Your task to perform on an android device: allow notifications from all sites in the chrome app Image 0: 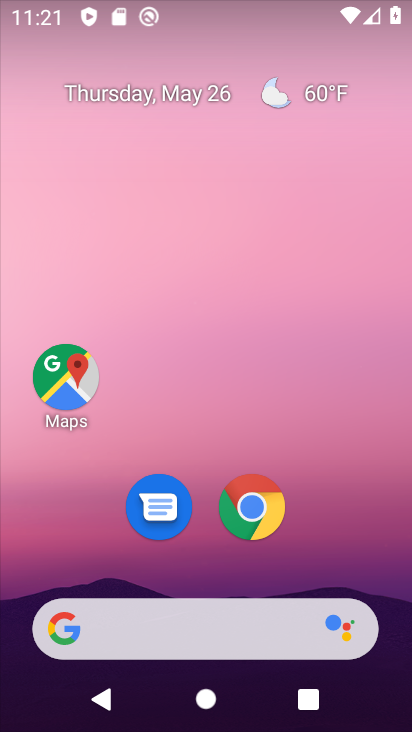
Step 0: click (248, 514)
Your task to perform on an android device: allow notifications from all sites in the chrome app Image 1: 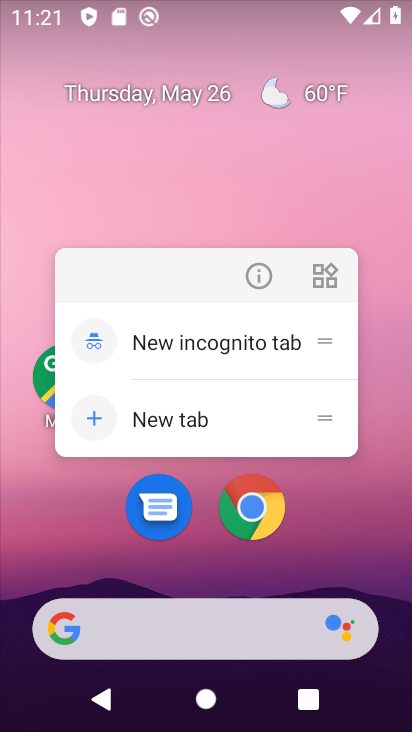
Step 1: click (260, 276)
Your task to perform on an android device: allow notifications from all sites in the chrome app Image 2: 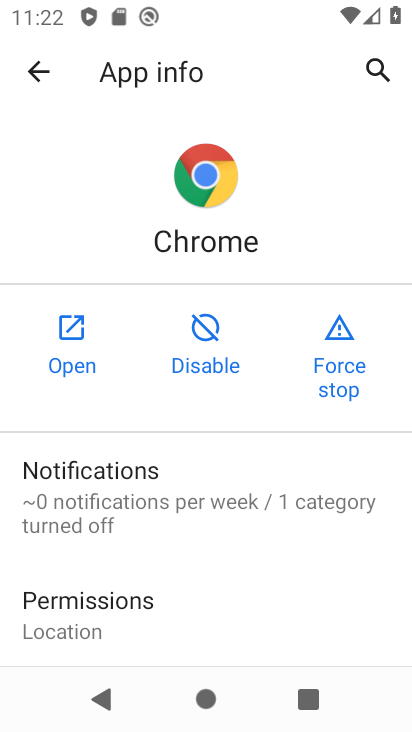
Step 2: click (132, 505)
Your task to perform on an android device: allow notifications from all sites in the chrome app Image 3: 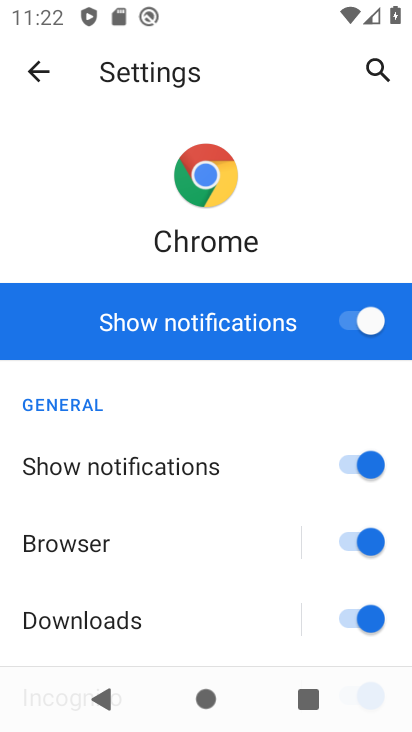
Step 3: task complete